Your task to perform on an android device: Open network settings Image 0: 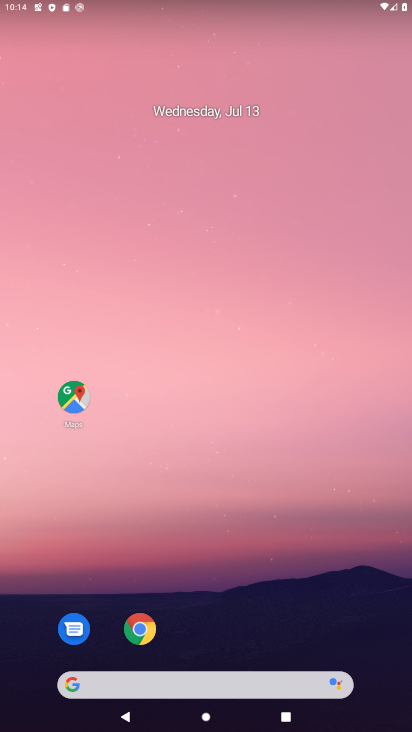
Step 0: press home button
Your task to perform on an android device: Open network settings Image 1: 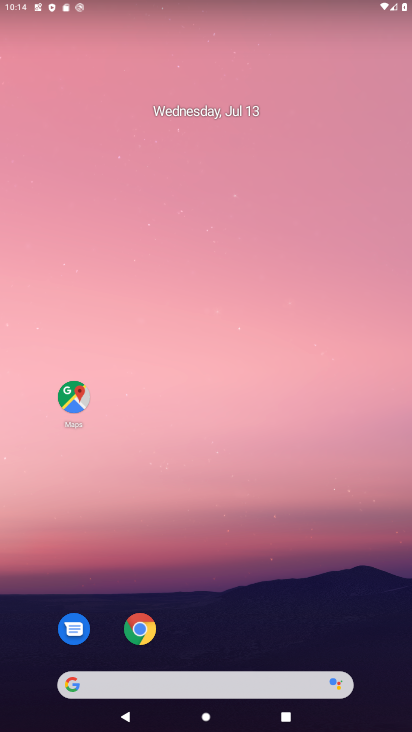
Step 1: drag from (218, 650) to (247, 205)
Your task to perform on an android device: Open network settings Image 2: 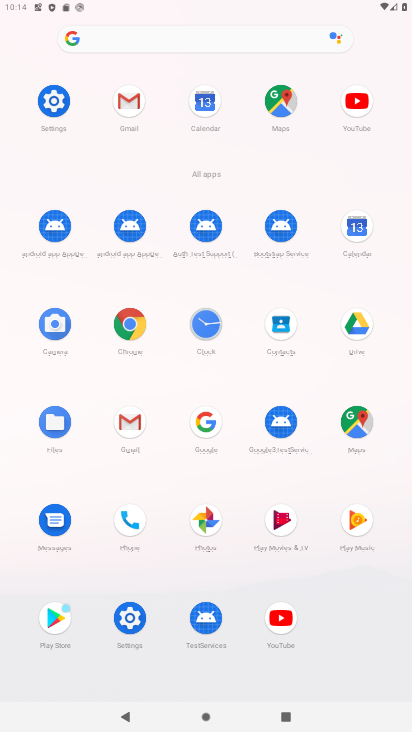
Step 2: click (57, 93)
Your task to perform on an android device: Open network settings Image 3: 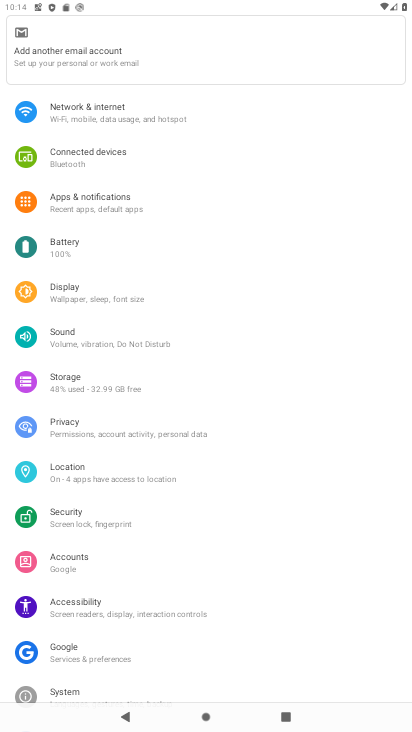
Step 3: click (118, 116)
Your task to perform on an android device: Open network settings Image 4: 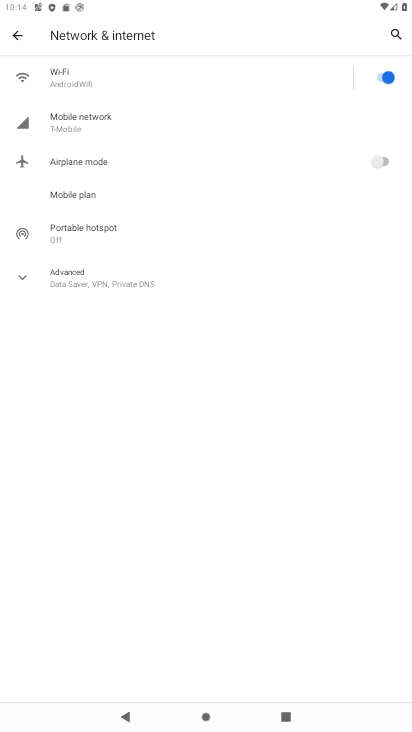
Step 4: click (66, 274)
Your task to perform on an android device: Open network settings Image 5: 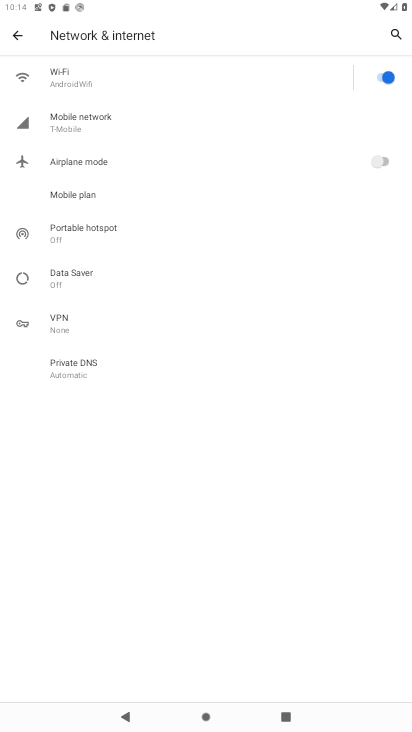
Step 5: task complete